Your task to perform on an android device: Clear the shopping cart on walmart.com. Search for bose soundsport free on walmart.com, select the first entry, add it to the cart, then select checkout. Image 0: 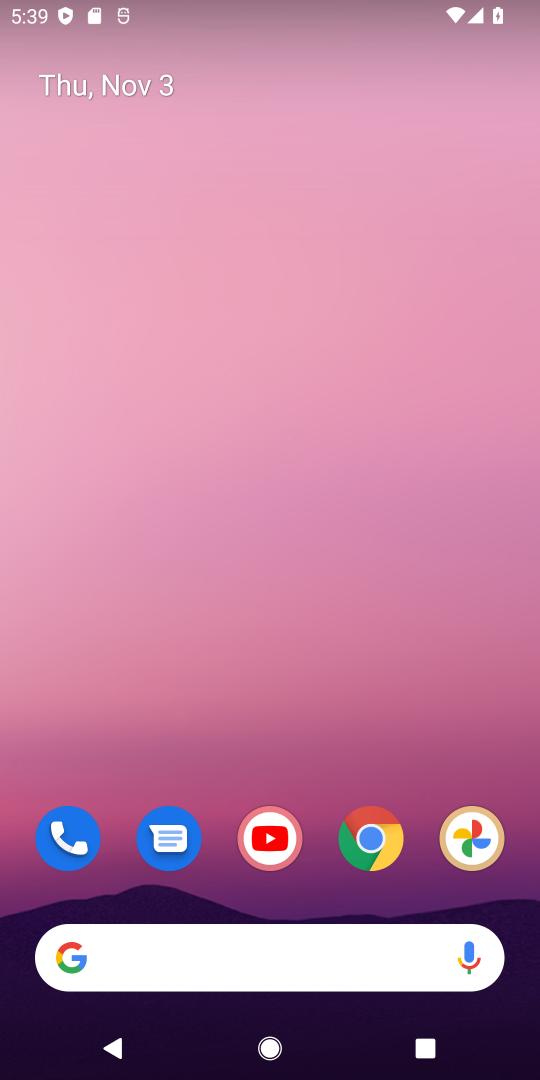
Step 0: click (377, 831)
Your task to perform on an android device: Clear the shopping cart on walmart.com. Search for bose soundsport free on walmart.com, select the first entry, add it to the cart, then select checkout. Image 1: 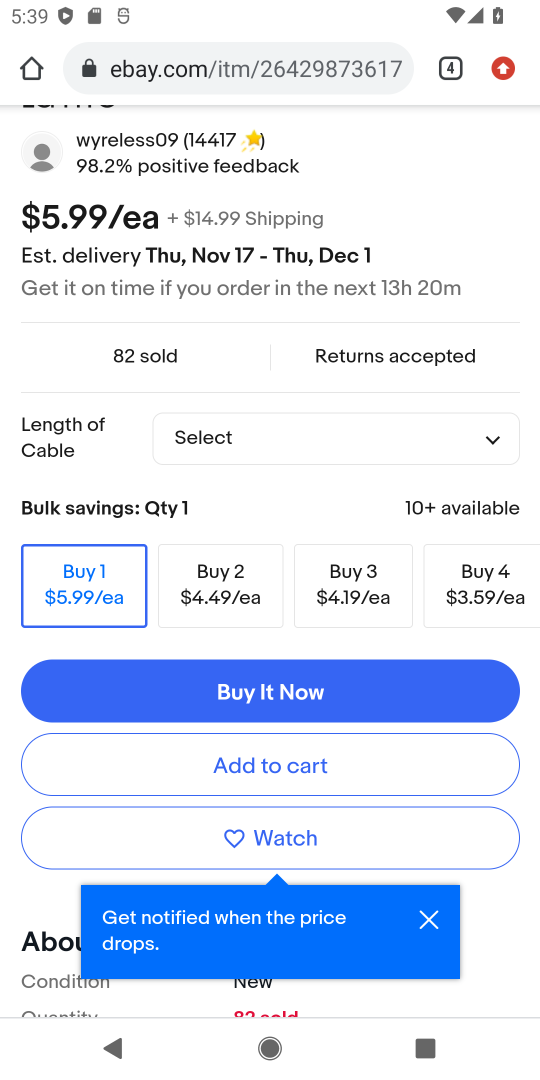
Step 1: click (451, 61)
Your task to perform on an android device: Clear the shopping cart on walmart.com. Search for bose soundsport free on walmart.com, select the first entry, add it to the cart, then select checkout. Image 2: 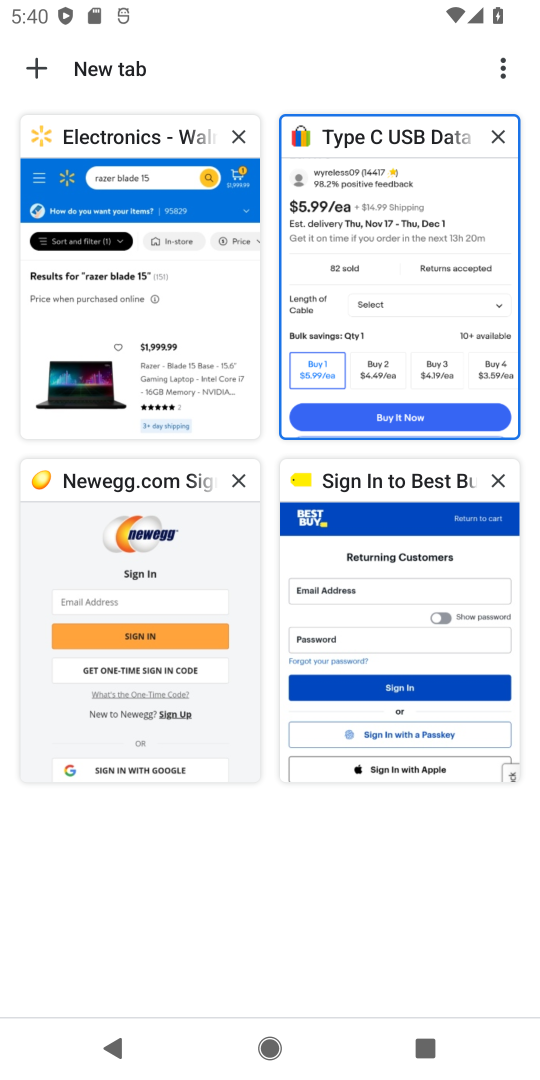
Step 2: click (138, 314)
Your task to perform on an android device: Clear the shopping cart on walmart.com. Search for bose soundsport free on walmart.com, select the first entry, add it to the cart, then select checkout. Image 3: 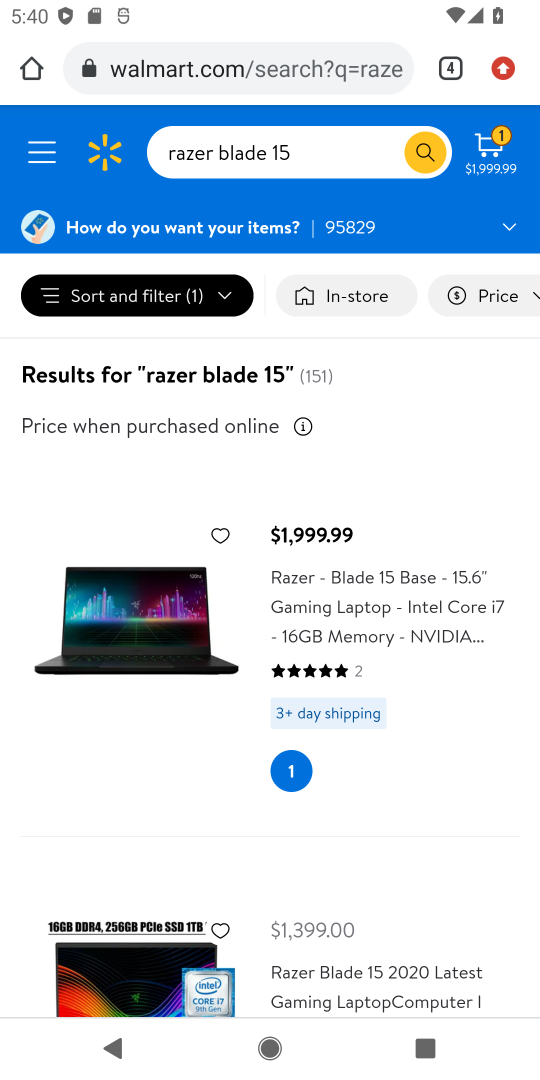
Step 3: click (307, 146)
Your task to perform on an android device: Clear the shopping cart on walmart.com. Search for bose soundsport free on walmart.com, select the first entry, add it to the cart, then select checkout. Image 4: 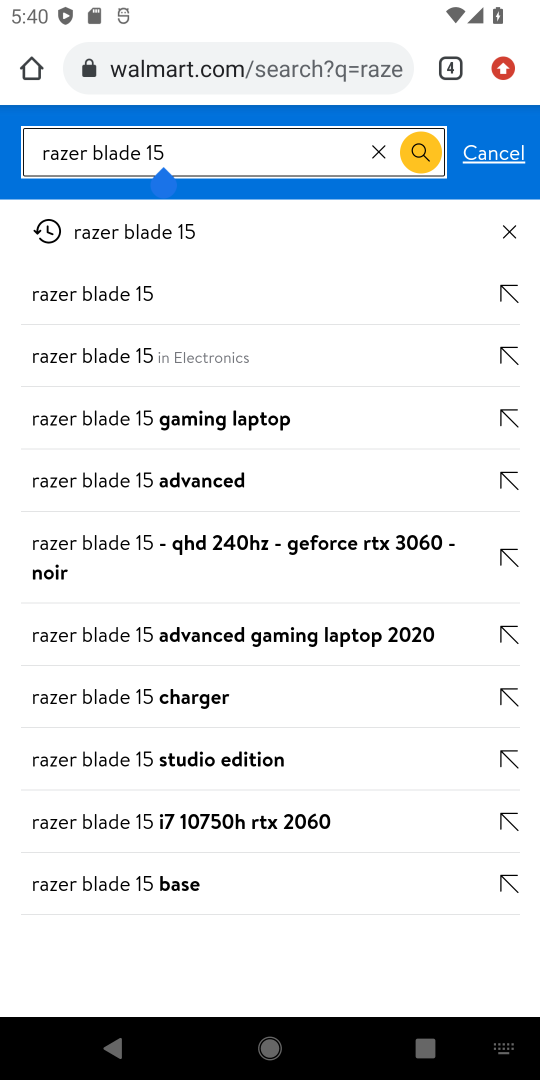
Step 4: click (375, 153)
Your task to perform on an android device: Clear the shopping cart on walmart.com. Search for bose soundsport free on walmart.com, select the first entry, add it to the cart, then select checkout. Image 5: 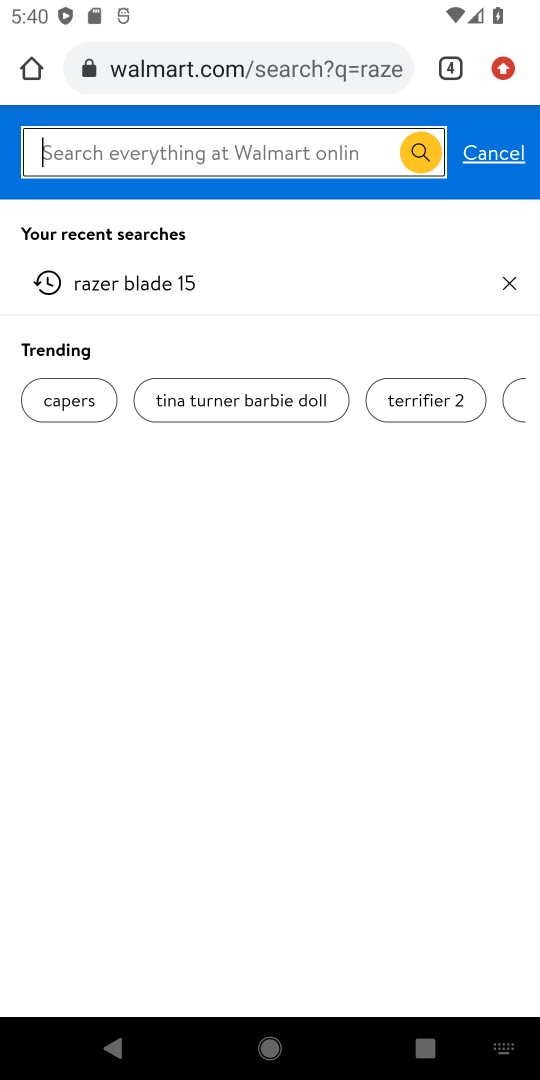
Step 5: type "bose soundsport free"
Your task to perform on an android device: Clear the shopping cart on walmart.com. Search for bose soundsport free on walmart.com, select the first entry, add it to the cart, then select checkout. Image 6: 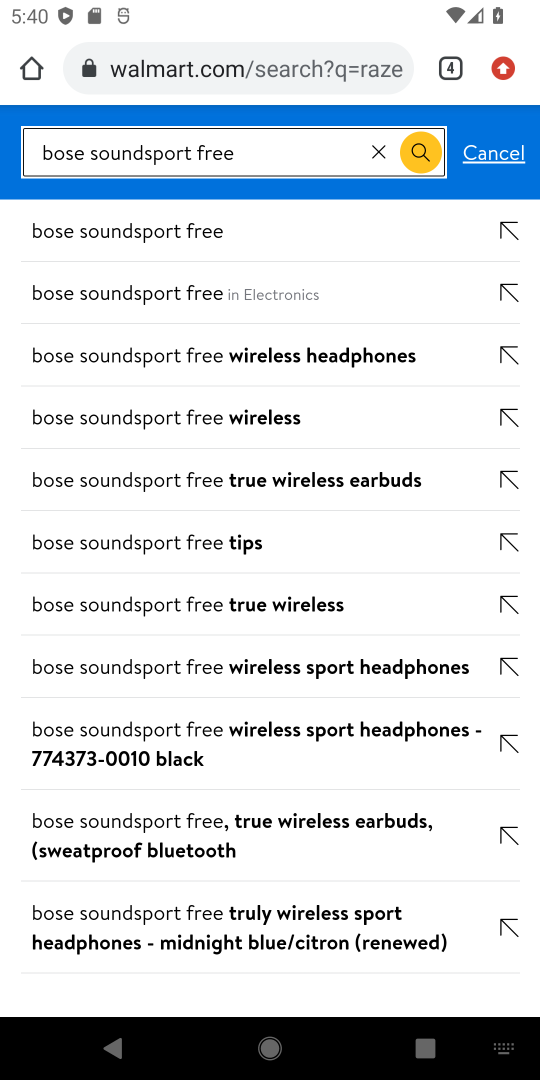
Step 6: click (245, 296)
Your task to perform on an android device: Clear the shopping cart on walmart.com. Search for bose soundsport free on walmart.com, select the first entry, add it to the cart, then select checkout. Image 7: 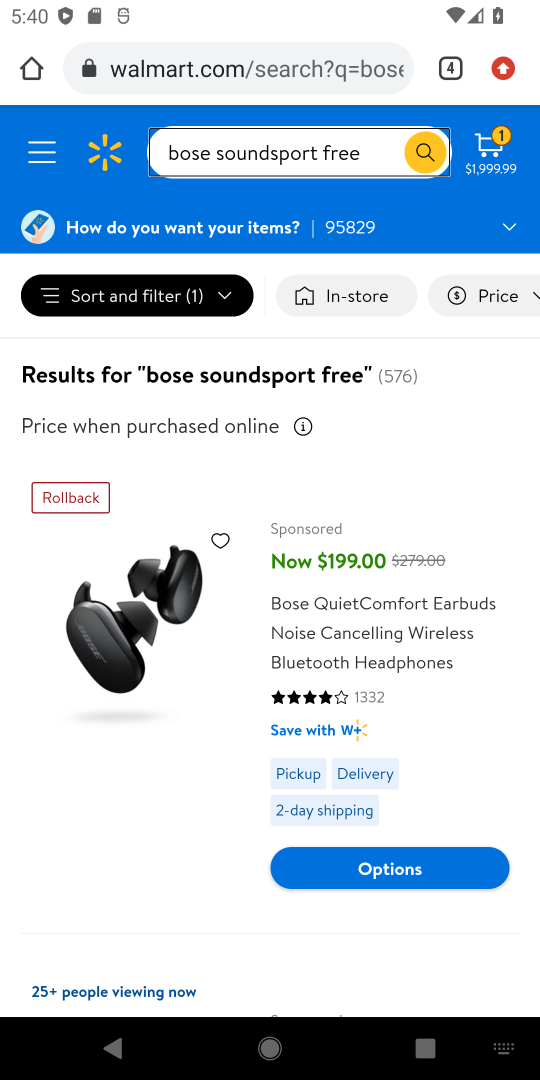
Step 7: click (368, 653)
Your task to perform on an android device: Clear the shopping cart on walmart.com. Search for bose soundsport free on walmart.com, select the first entry, add it to the cart, then select checkout. Image 8: 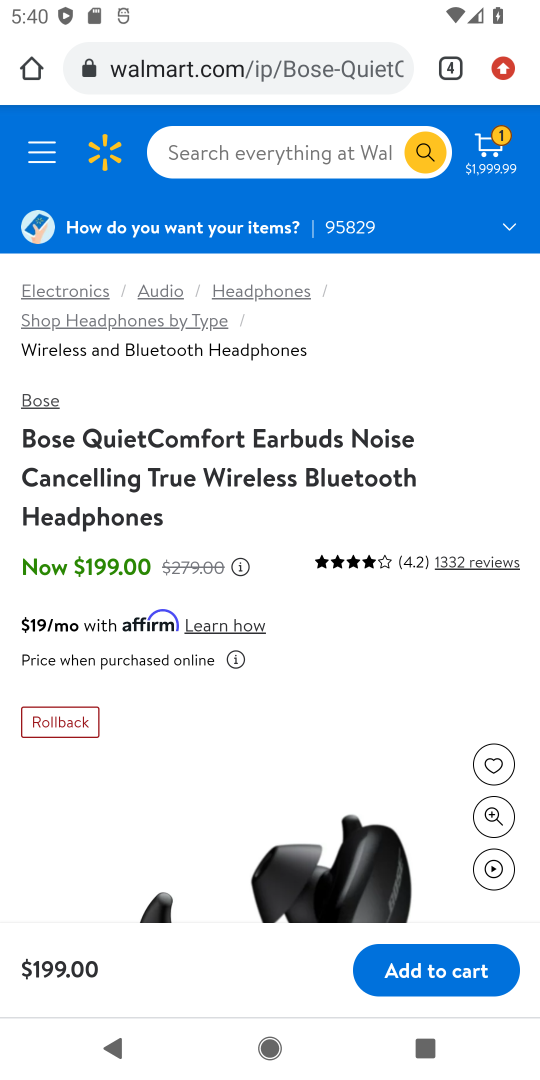
Step 8: click (436, 972)
Your task to perform on an android device: Clear the shopping cart on walmart.com. Search for bose soundsport free on walmart.com, select the first entry, add it to the cart, then select checkout. Image 9: 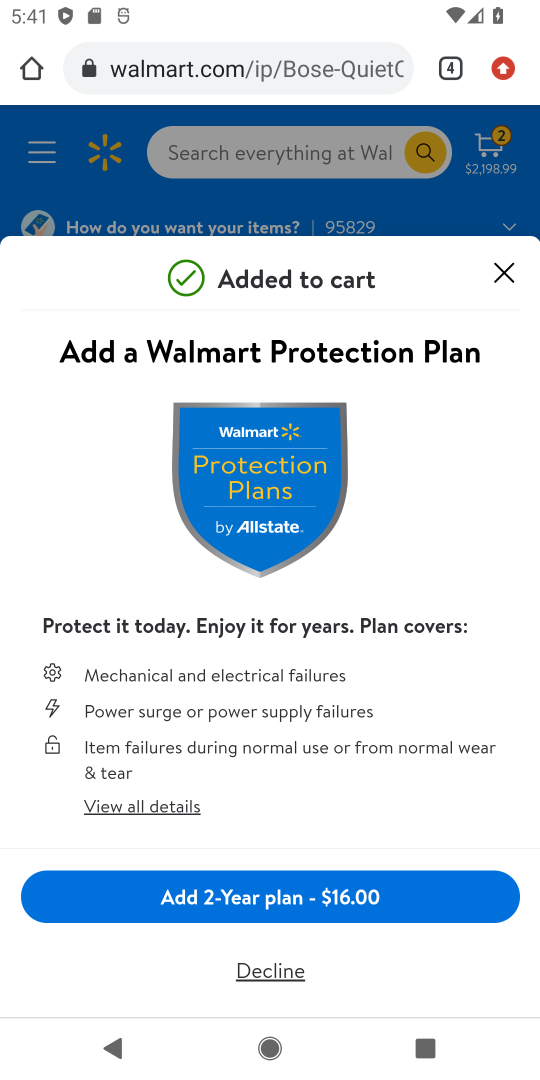
Step 9: task complete